Your task to perform on an android device: Open Google Chrome and click the shortcut for Amazon.com Image 0: 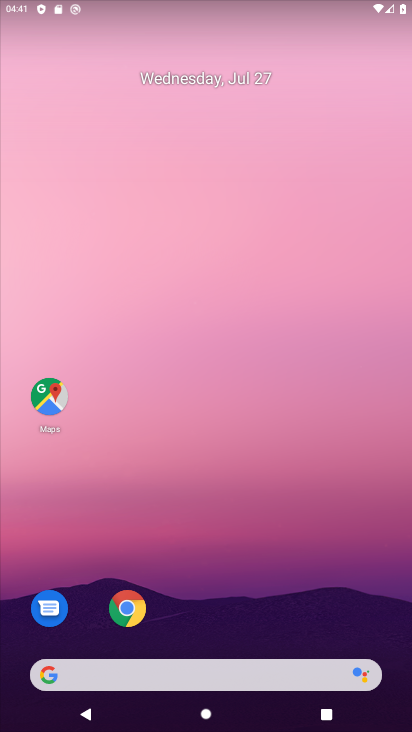
Step 0: press home button
Your task to perform on an android device: Open Google Chrome and click the shortcut for Amazon.com Image 1: 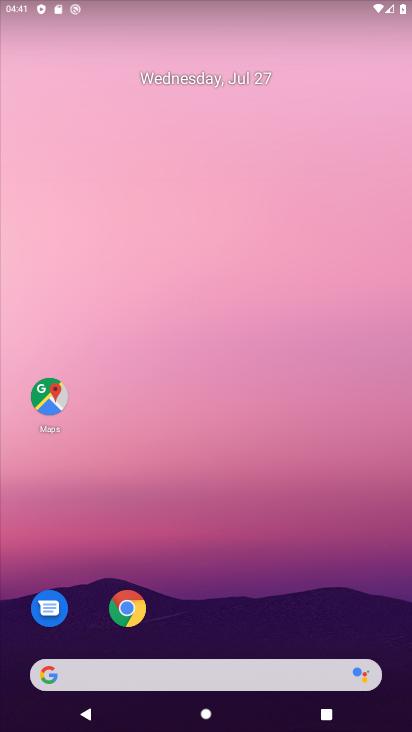
Step 1: drag from (248, 601) to (12, 126)
Your task to perform on an android device: Open Google Chrome and click the shortcut for Amazon.com Image 2: 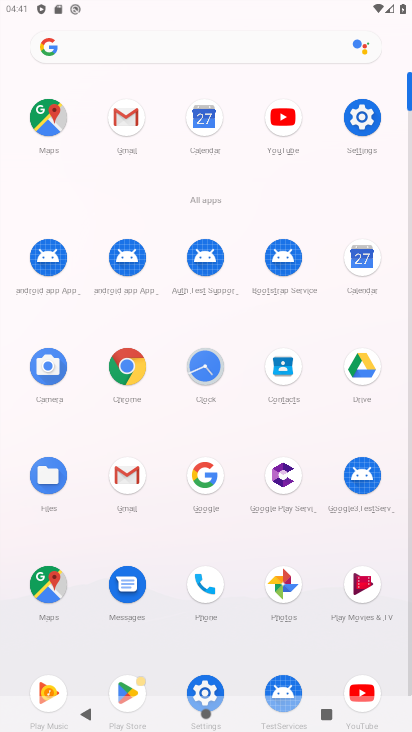
Step 2: click (134, 367)
Your task to perform on an android device: Open Google Chrome and click the shortcut for Amazon.com Image 3: 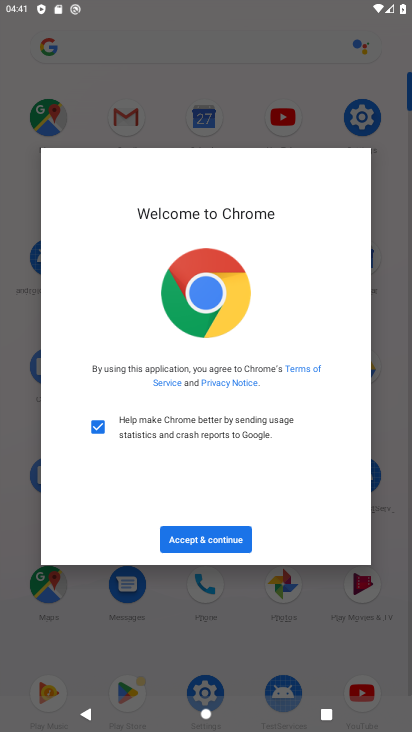
Step 3: click (207, 535)
Your task to perform on an android device: Open Google Chrome and click the shortcut for Amazon.com Image 4: 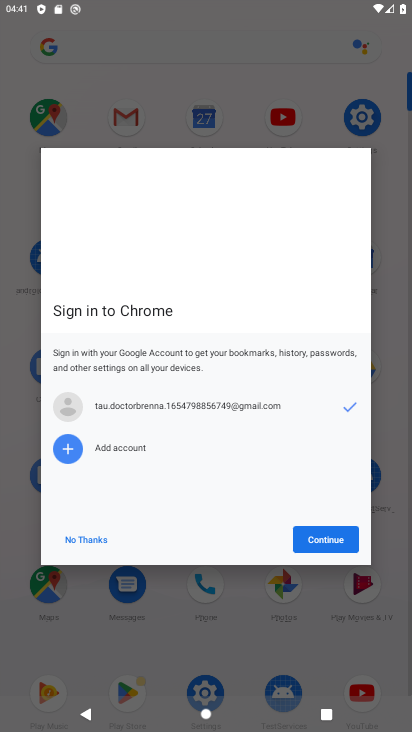
Step 4: click (318, 537)
Your task to perform on an android device: Open Google Chrome and click the shortcut for Amazon.com Image 5: 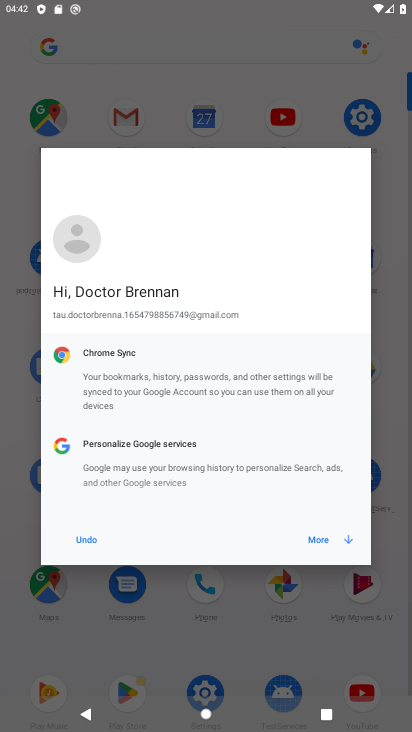
Step 5: click (315, 548)
Your task to perform on an android device: Open Google Chrome and click the shortcut for Amazon.com Image 6: 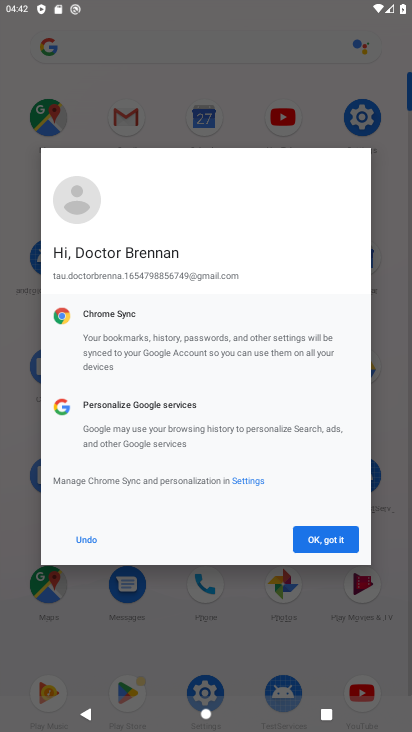
Step 6: click (320, 536)
Your task to perform on an android device: Open Google Chrome and click the shortcut for Amazon.com Image 7: 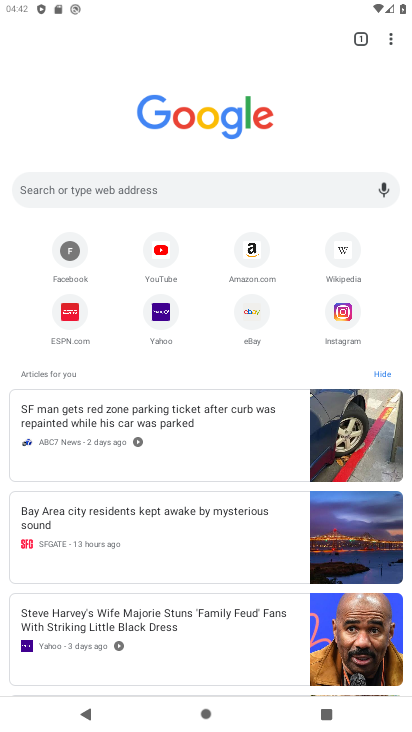
Step 7: click (246, 248)
Your task to perform on an android device: Open Google Chrome and click the shortcut for Amazon.com Image 8: 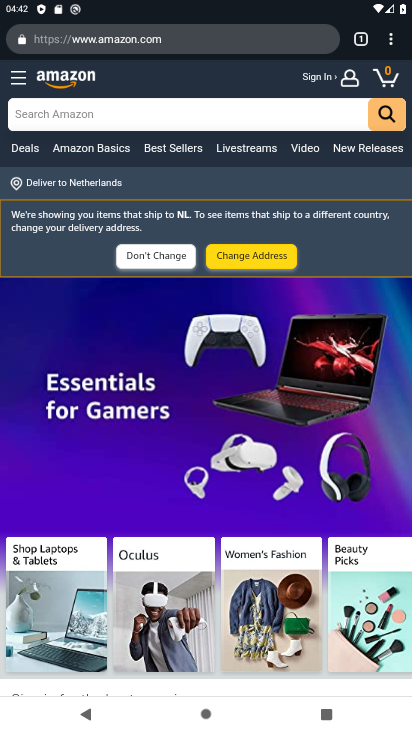
Step 8: task complete